Your task to perform on an android device: Open internet settings Image 0: 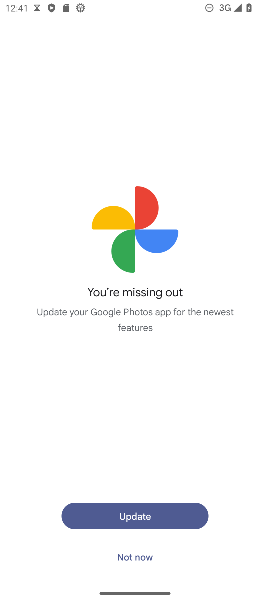
Step 0: press back button
Your task to perform on an android device: Open internet settings Image 1: 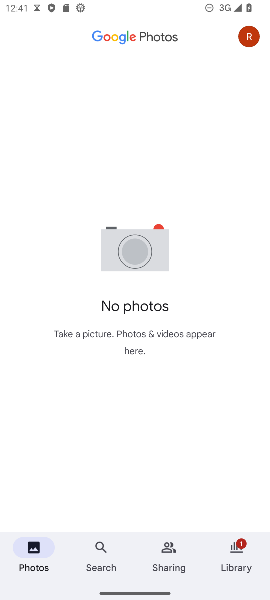
Step 1: press back button
Your task to perform on an android device: Open internet settings Image 2: 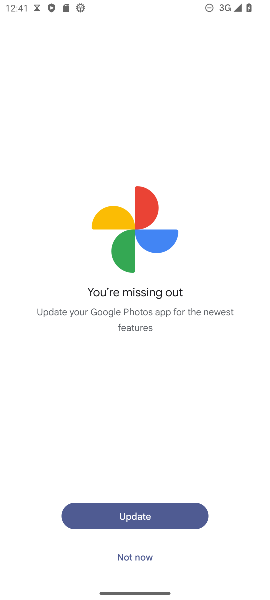
Step 2: press home button
Your task to perform on an android device: Open internet settings Image 3: 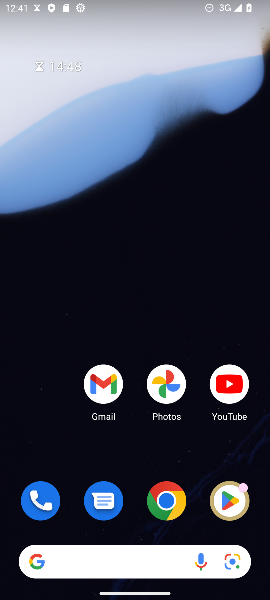
Step 3: click (132, 194)
Your task to perform on an android device: Open internet settings Image 4: 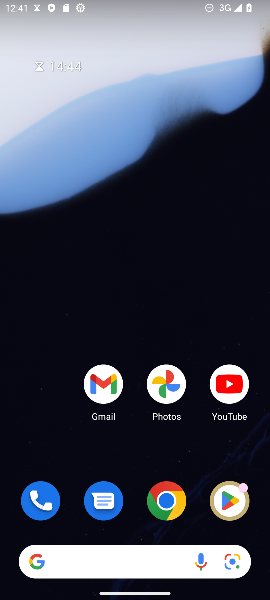
Step 4: drag from (134, 360) to (155, 89)
Your task to perform on an android device: Open internet settings Image 5: 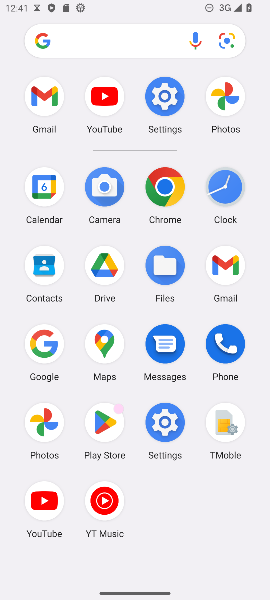
Step 5: click (164, 97)
Your task to perform on an android device: Open internet settings Image 6: 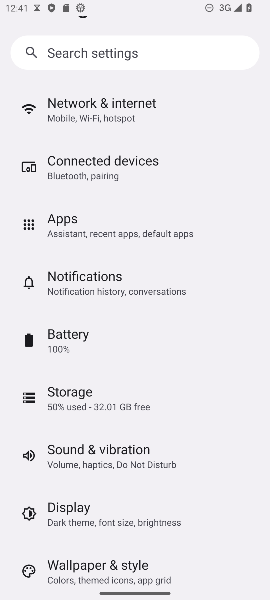
Step 6: click (119, 109)
Your task to perform on an android device: Open internet settings Image 7: 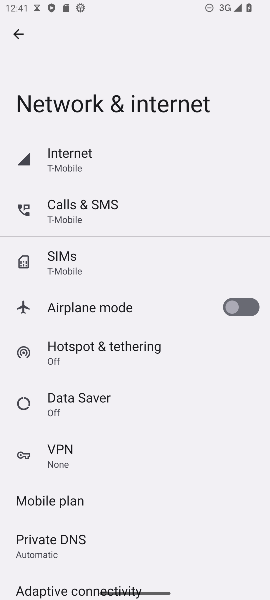
Step 7: task complete